Your task to perform on an android device: What's the weather going to be tomorrow? Image 0: 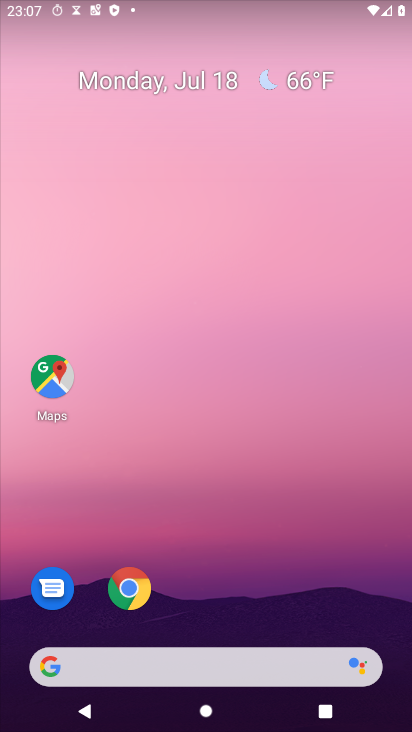
Step 0: click (129, 668)
Your task to perform on an android device: What's the weather going to be tomorrow? Image 1: 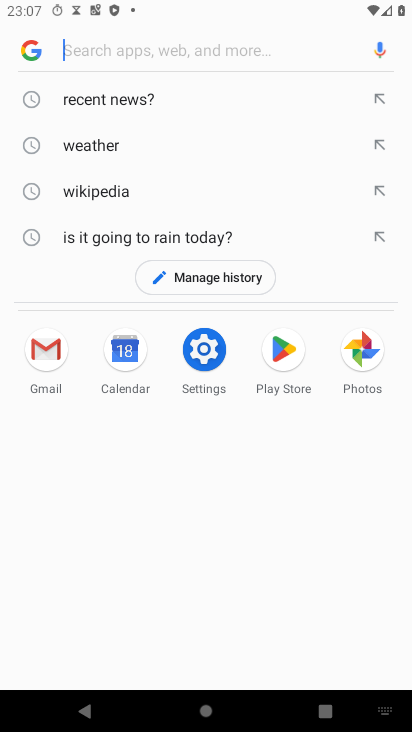
Step 1: click (102, 144)
Your task to perform on an android device: What's the weather going to be tomorrow? Image 2: 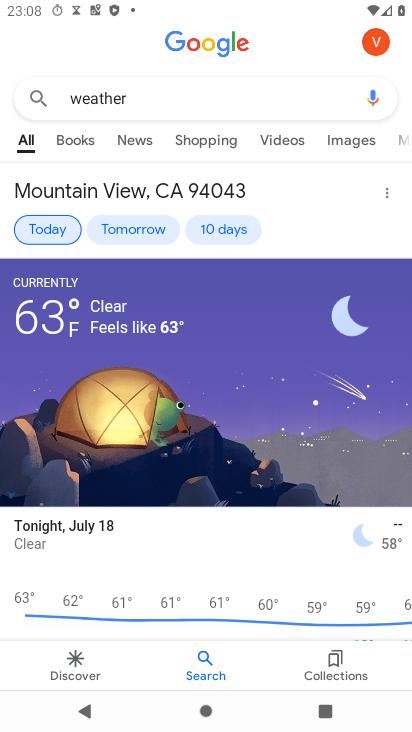
Step 2: click (125, 228)
Your task to perform on an android device: What's the weather going to be tomorrow? Image 3: 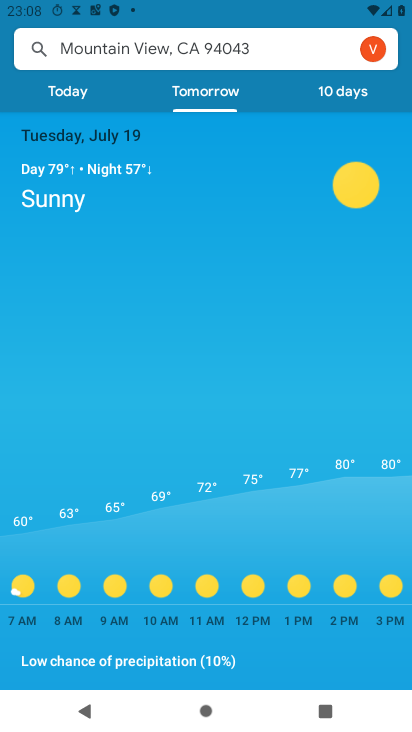
Step 3: task complete